Your task to perform on an android device: turn on javascript in the chrome app Image 0: 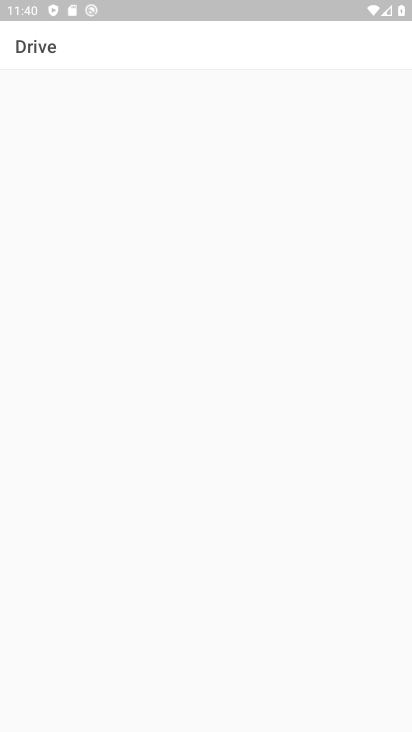
Step 0: press home button
Your task to perform on an android device: turn on javascript in the chrome app Image 1: 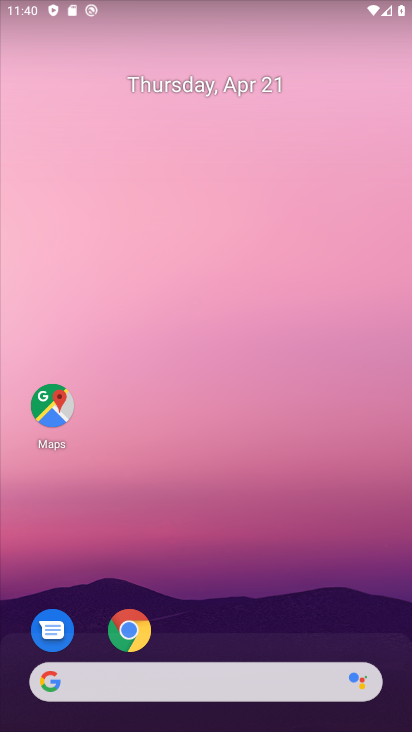
Step 1: click (132, 630)
Your task to perform on an android device: turn on javascript in the chrome app Image 2: 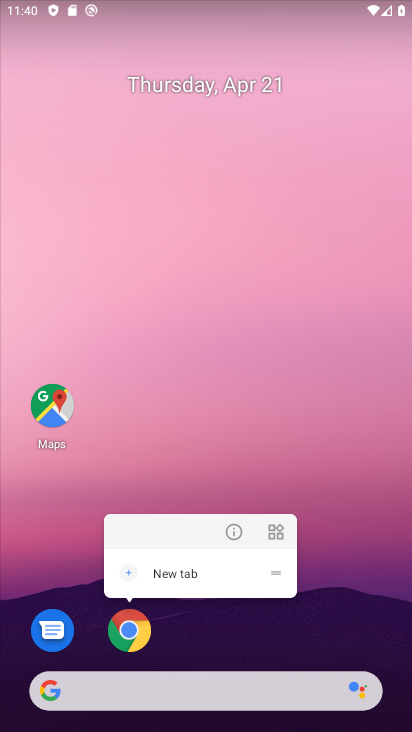
Step 2: click (126, 631)
Your task to perform on an android device: turn on javascript in the chrome app Image 3: 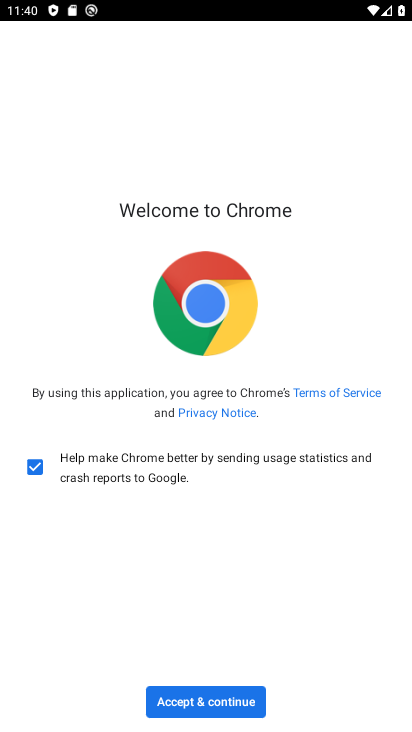
Step 3: click (181, 696)
Your task to perform on an android device: turn on javascript in the chrome app Image 4: 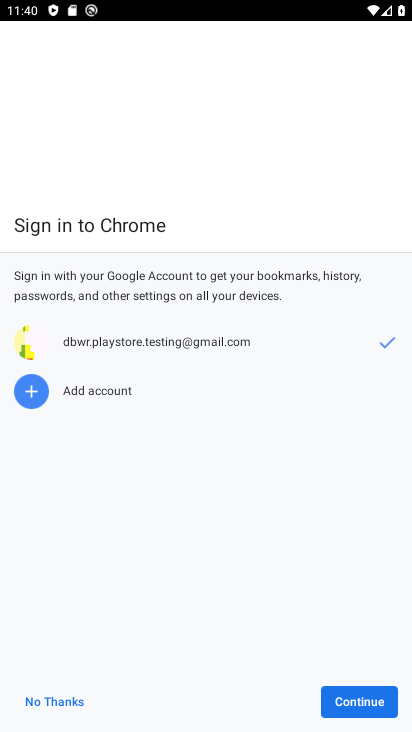
Step 4: click (342, 700)
Your task to perform on an android device: turn on javascript in the chrome app Image 5: 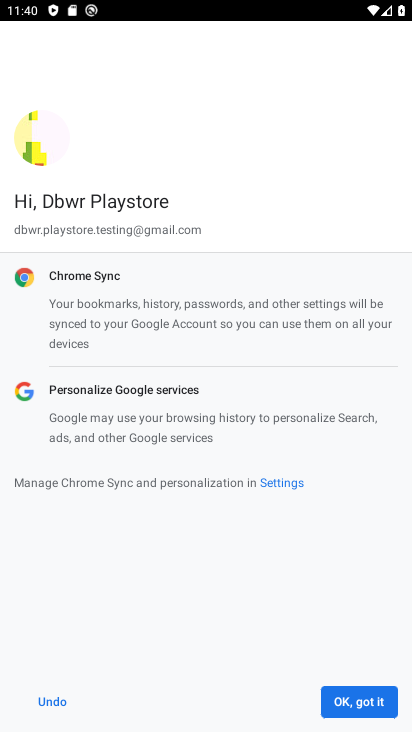
Step 5: click (342, 700)
Your task to perform on an android device: turn on javascript in the chrome app Image 6: 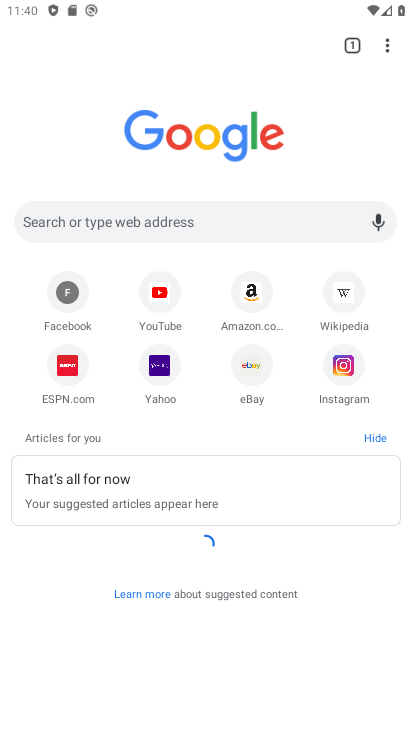
Step 6: click (390, 42)
Your task to perform on an android device: turn on javascript in the chrome app Image 7: 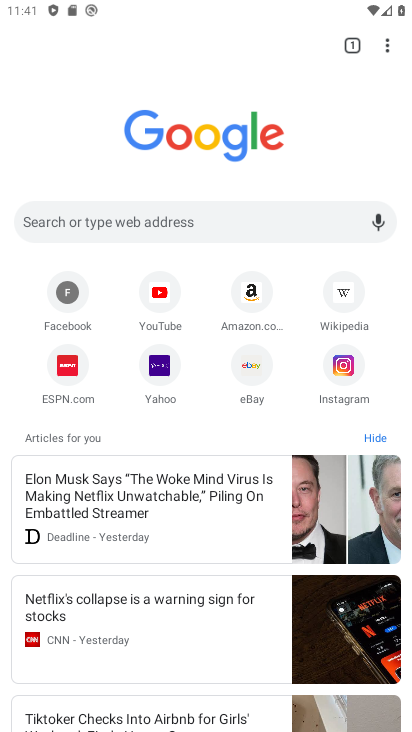
Step 7: click (390, 42)
Your task to perform on an android device: turn on javascript in the chrome app Image 8: 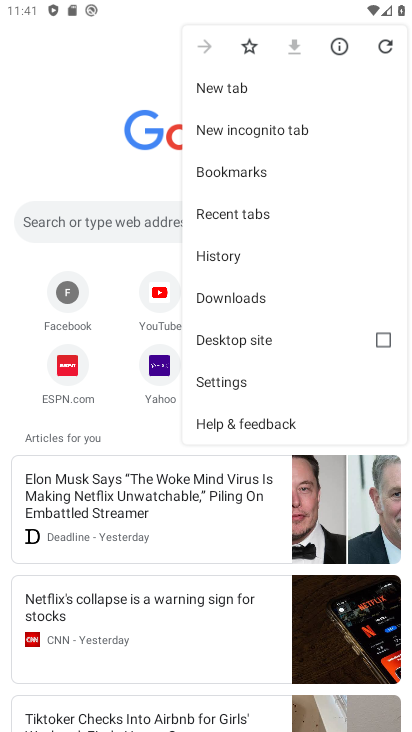
Step 8: click (241, 378)
Your task to perform on an android device: turn on javascript in the chrome app Image 9: 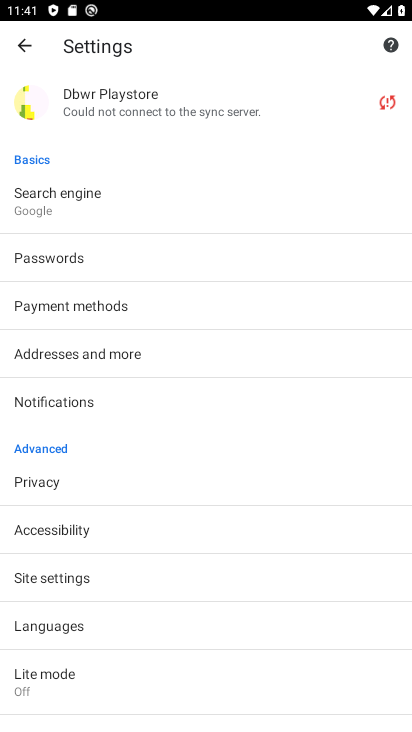
Step 9: click (43, 577)
Your task to perform on an android device: turn on javascript in the chrome app Image 10: 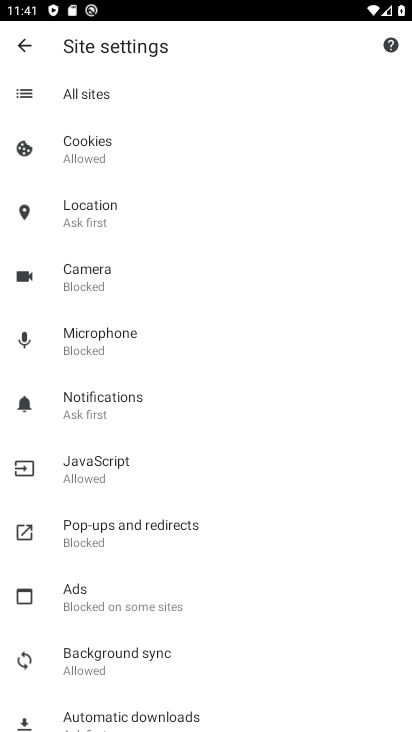
Step 10: click (91, 469)
Your task to perform on an android device: turn on javascript in the chrome app Image 11: 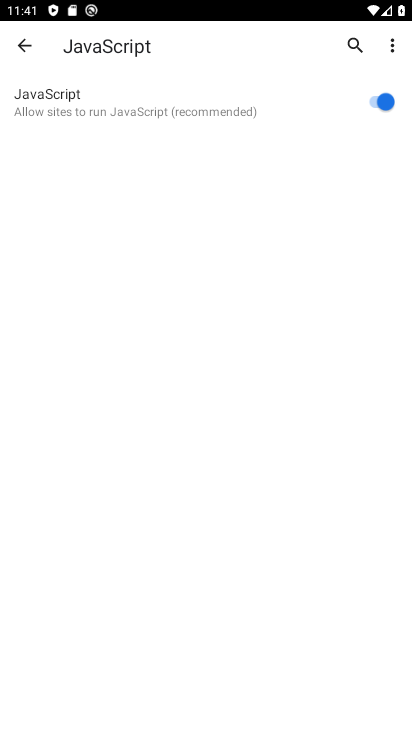
Step 11: task complete